Your task to perform on an android device: install app "Google Find My Device" Image 0: 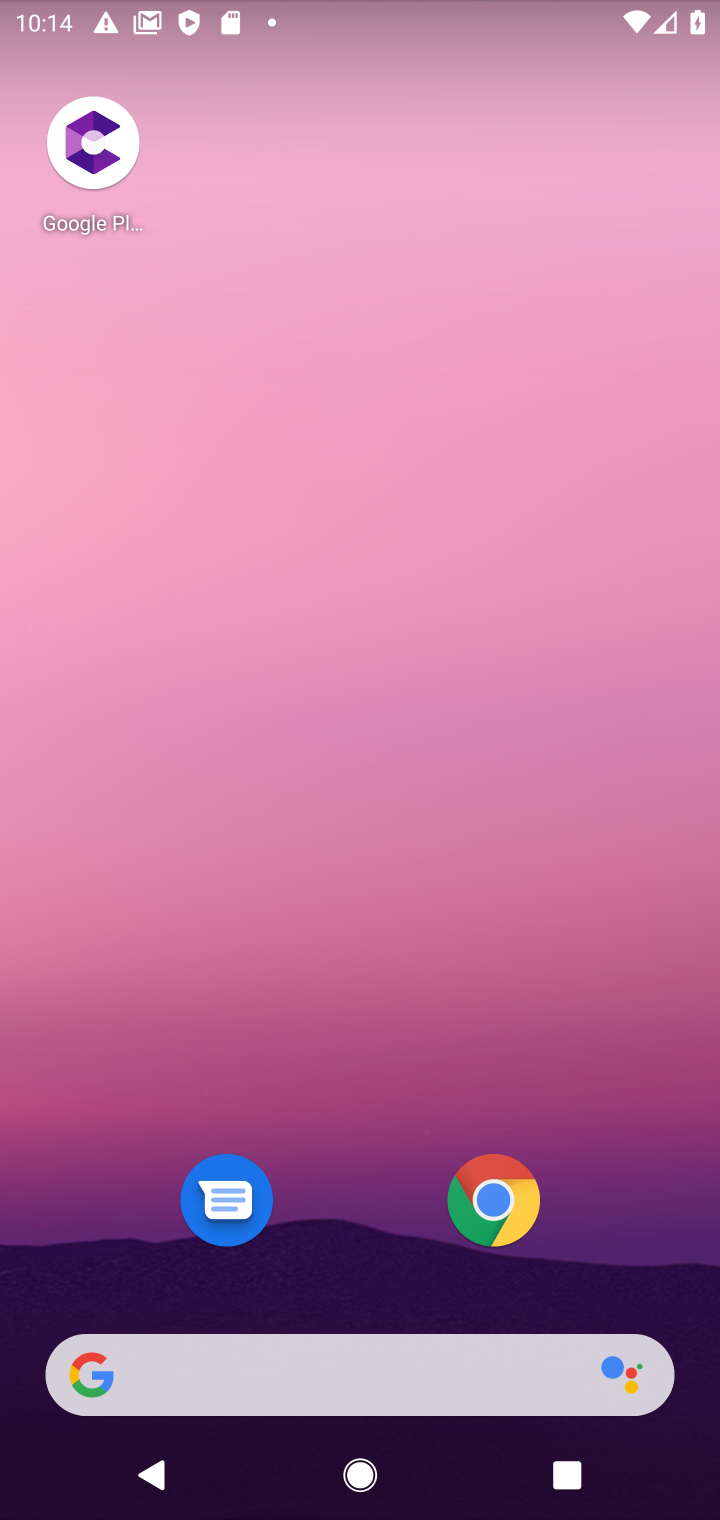
Step 0: drag from (405, 1284) to (657, 60)
Your task to perform on an android device: install app "Google Find My Device" Image 1: 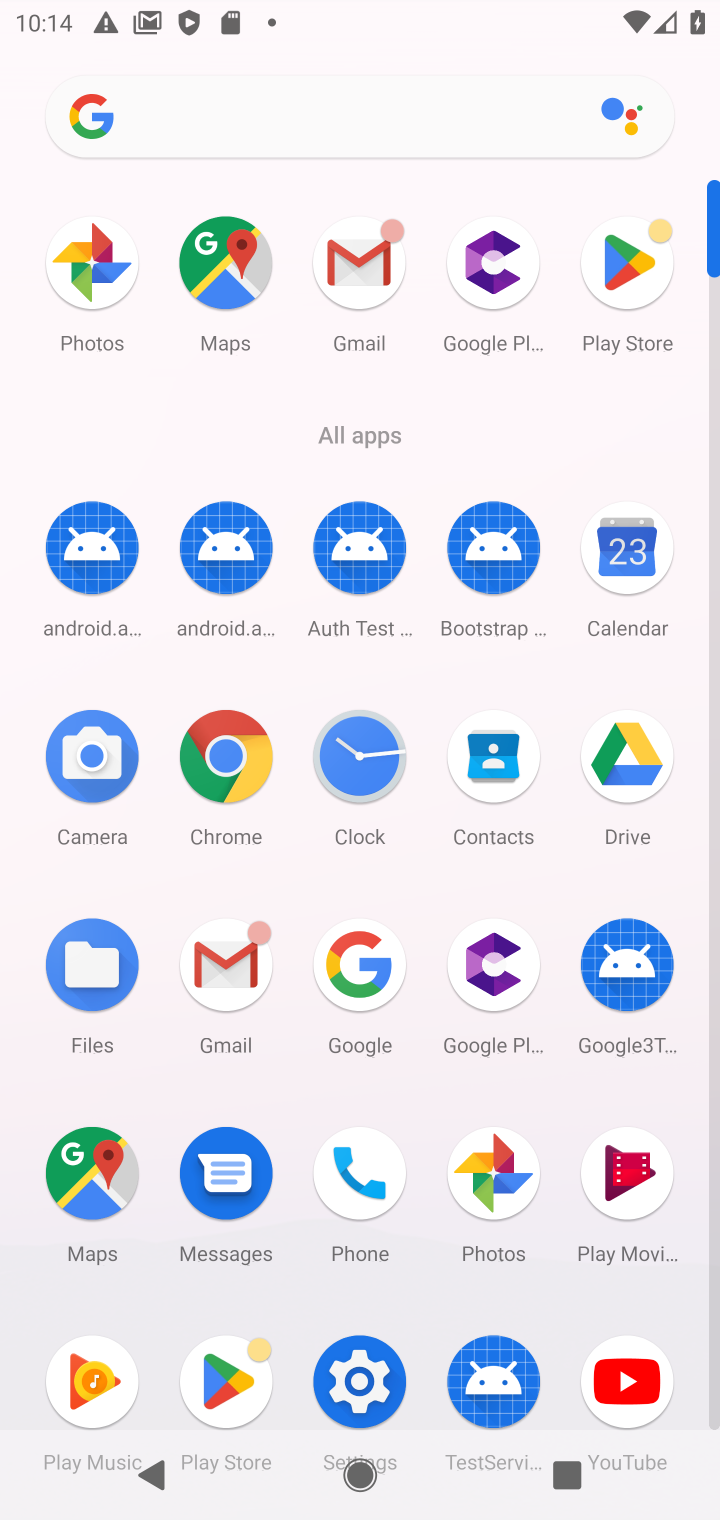
Step 1: click (632, 392)
Your task to perform on an android device: install app "Google Find My Device" Image 2: 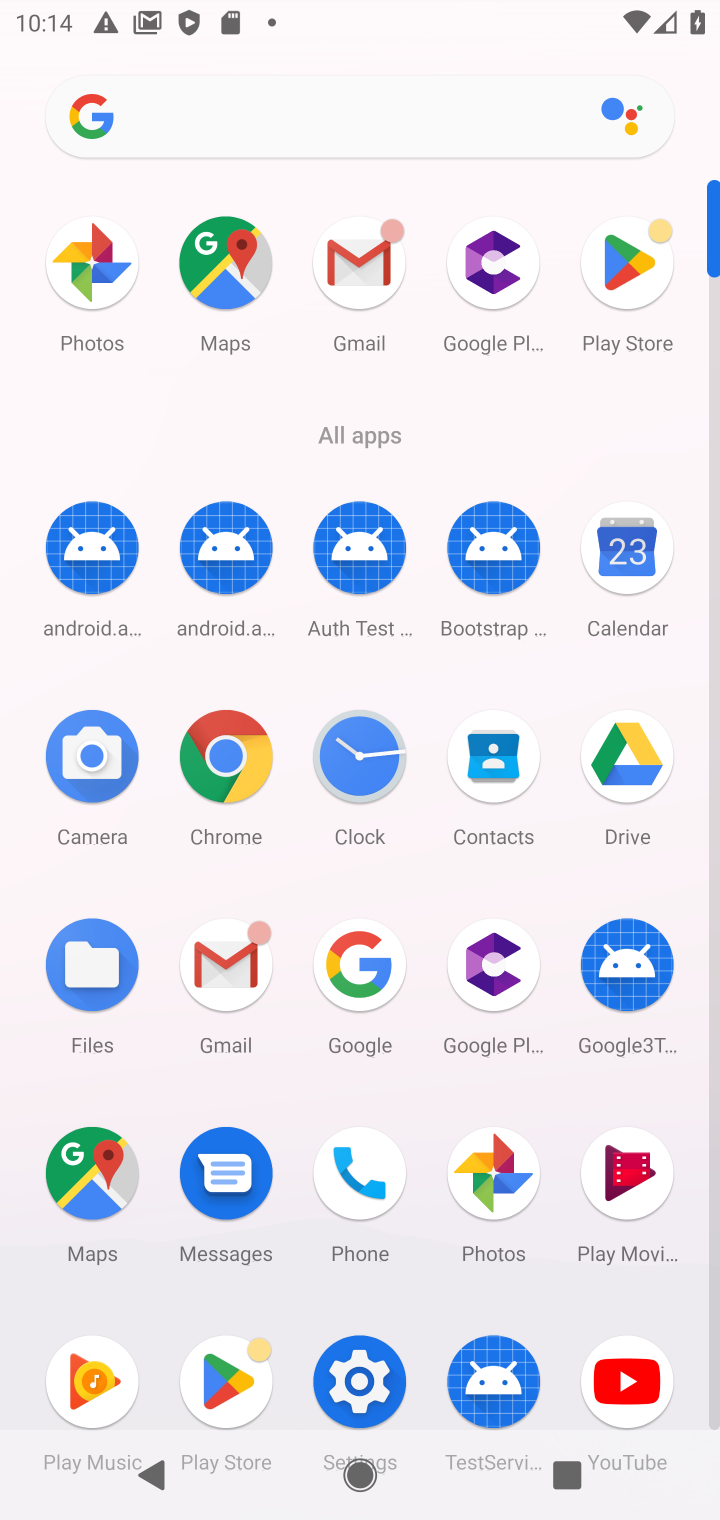
Step 2: click (638, 255)
Your task to perform on an android device: install app "Google Find My Device" Image 3: 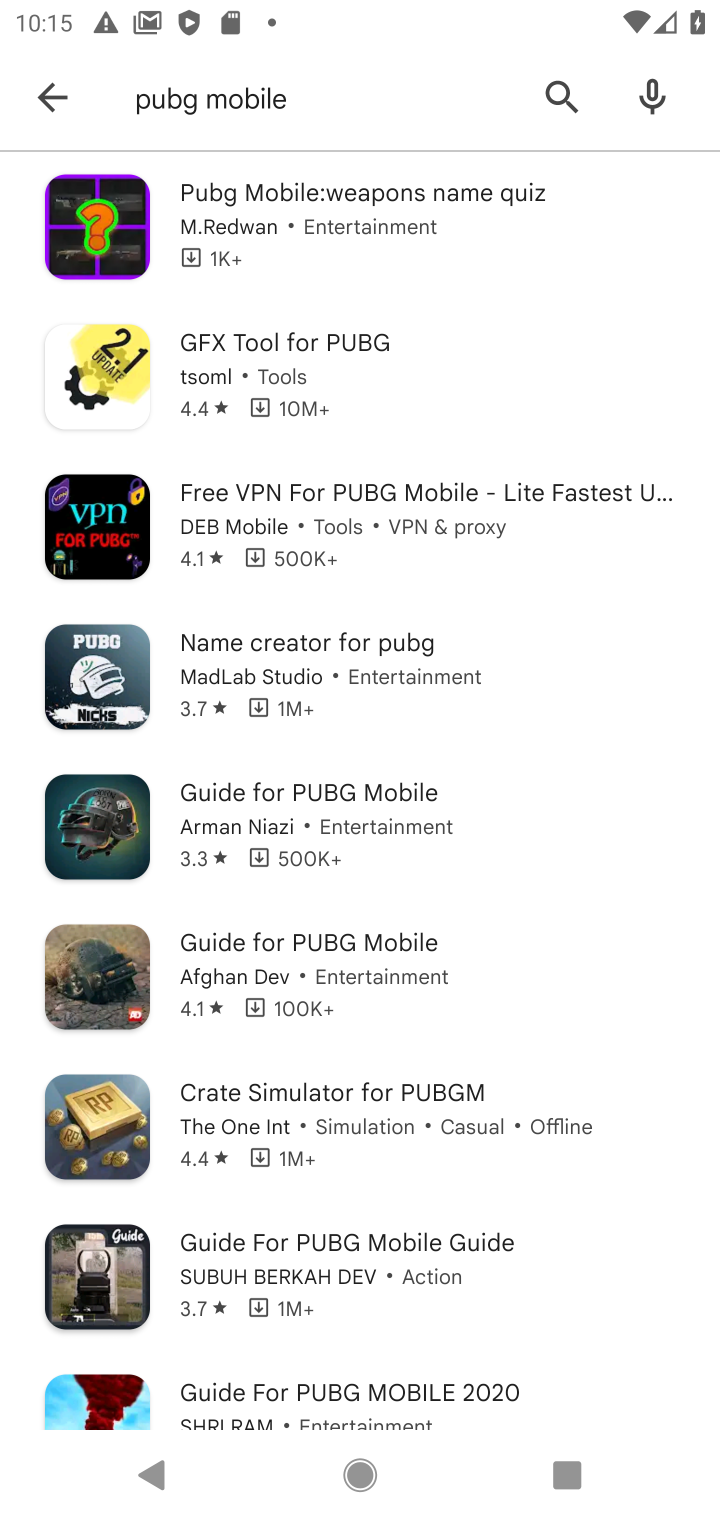
Step 3: click (47, 93)
Your task to perform on an android device: install app "Google Find My Device" Image 4: 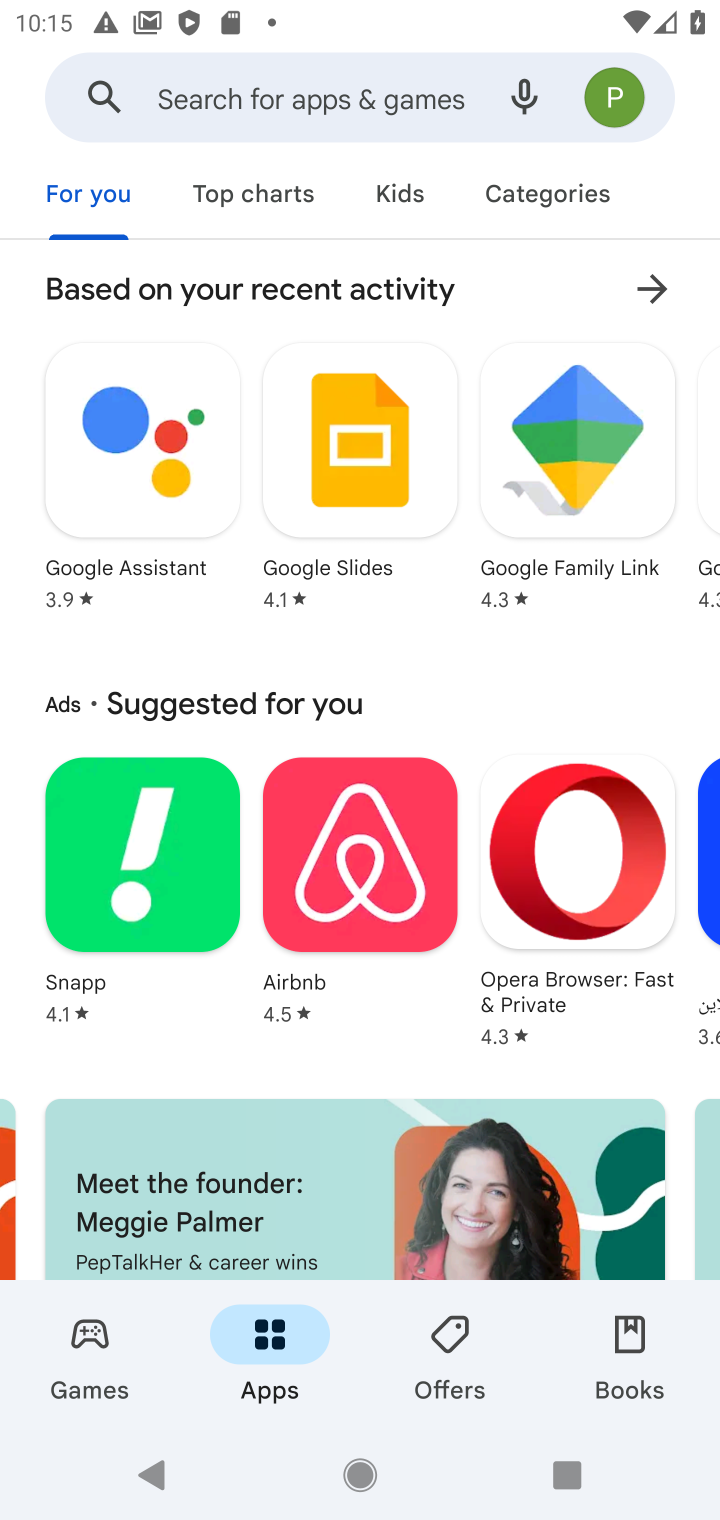
Step 4: click (161, 102)
Your task to perform on an android device: install app "Google Find My Device" Image 5: 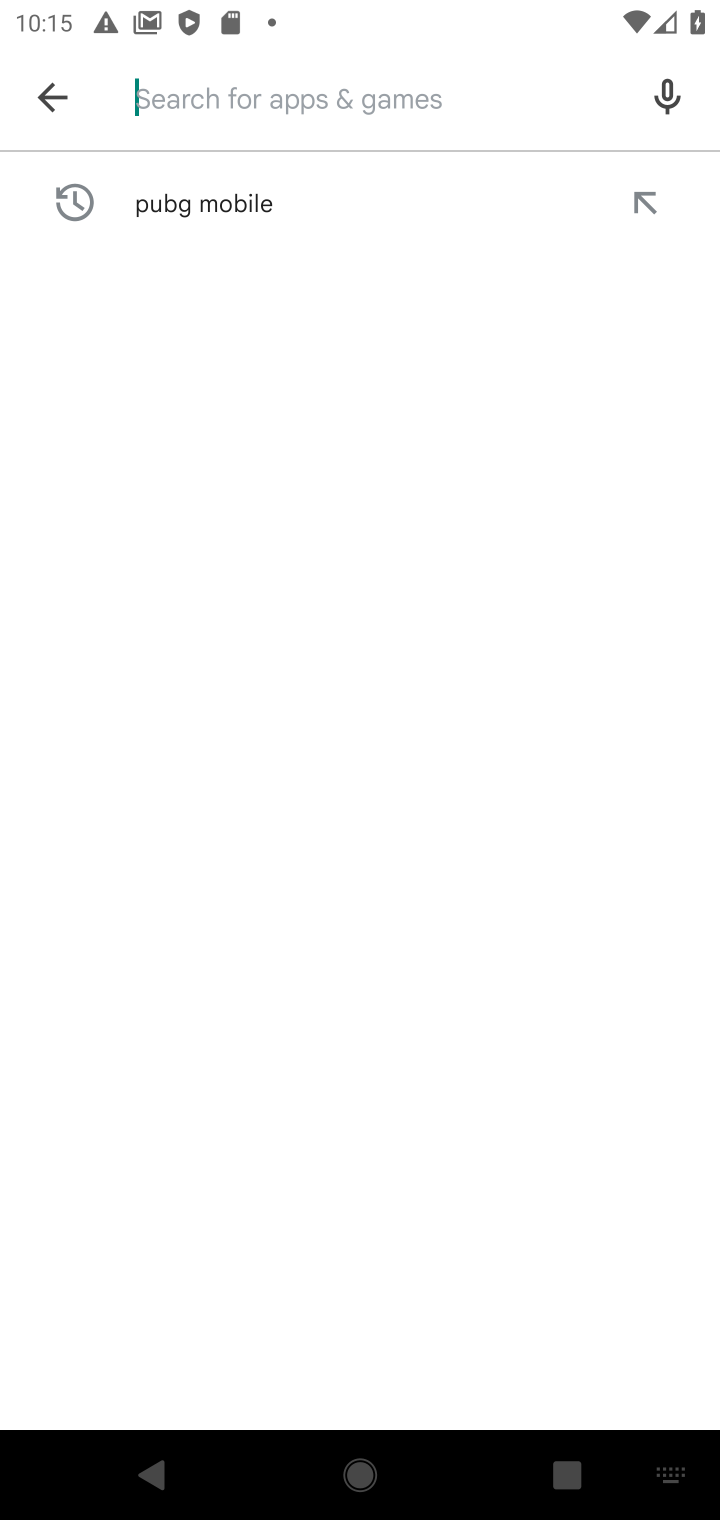
Step 5: type "Google Find My Device"
Your task to perform on an android device: install app "Google Find My Device" Image 6: 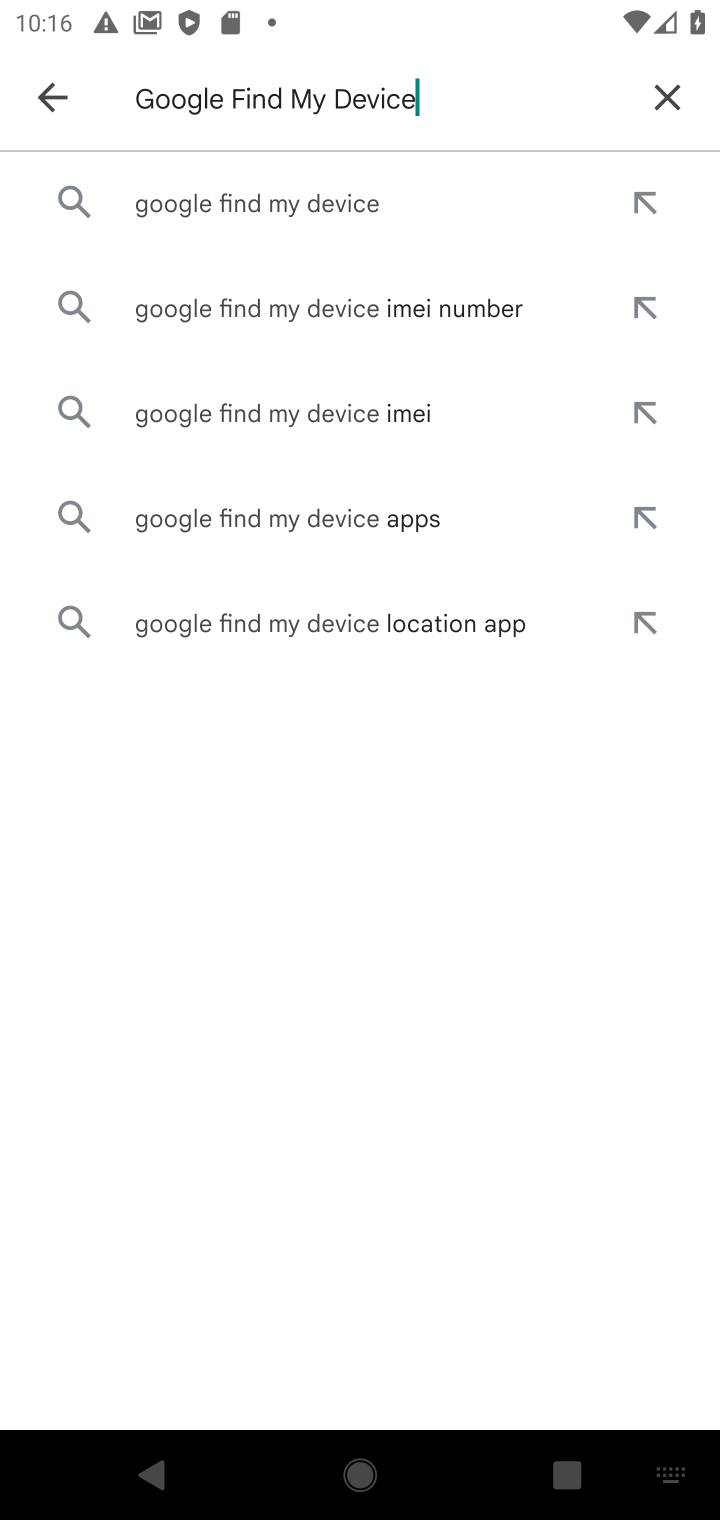
Step 6: click (412, 205)
Your task to perform on an android device: install app "Google Find My Device" Image 7: 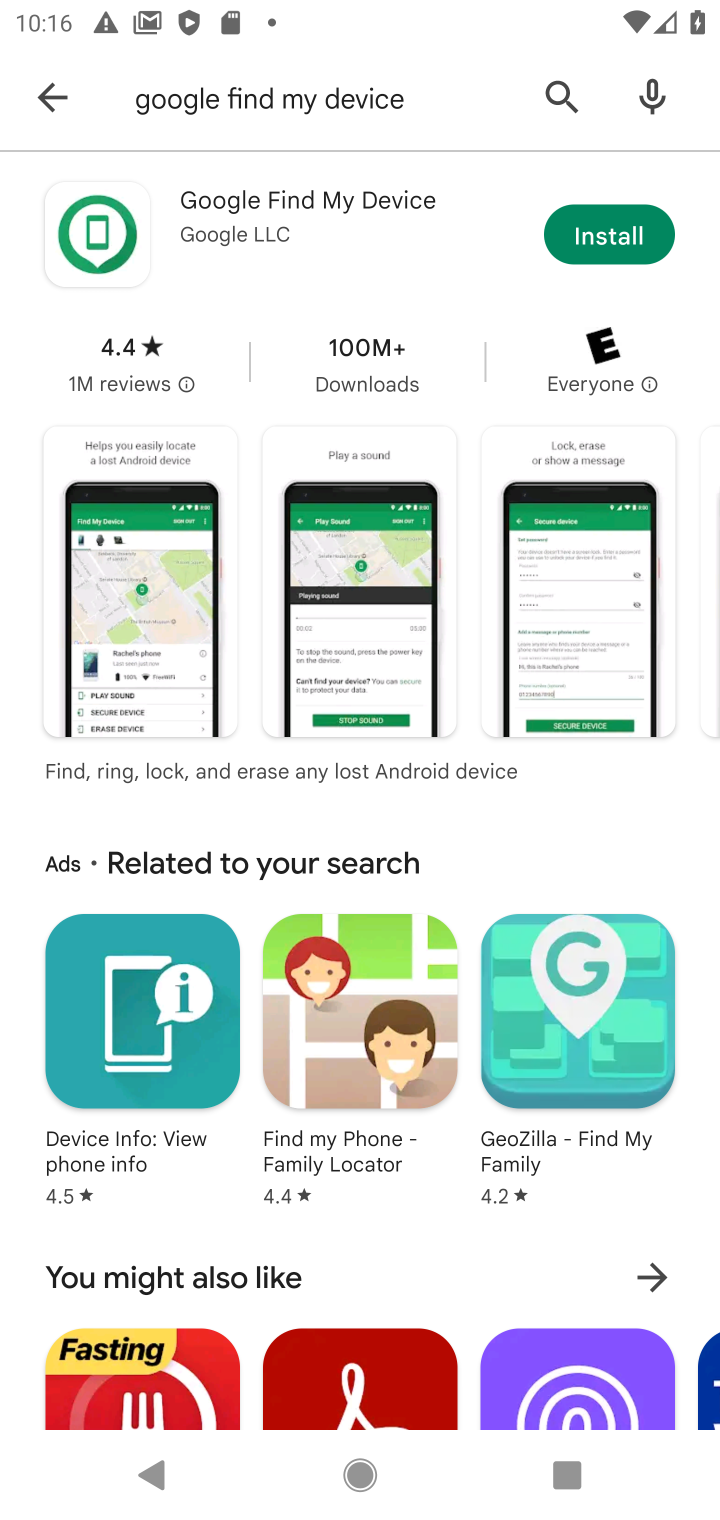
Step 7: click (412, 205)
Your task to perform on an android device: install app "Google Find My Device" Image 8: 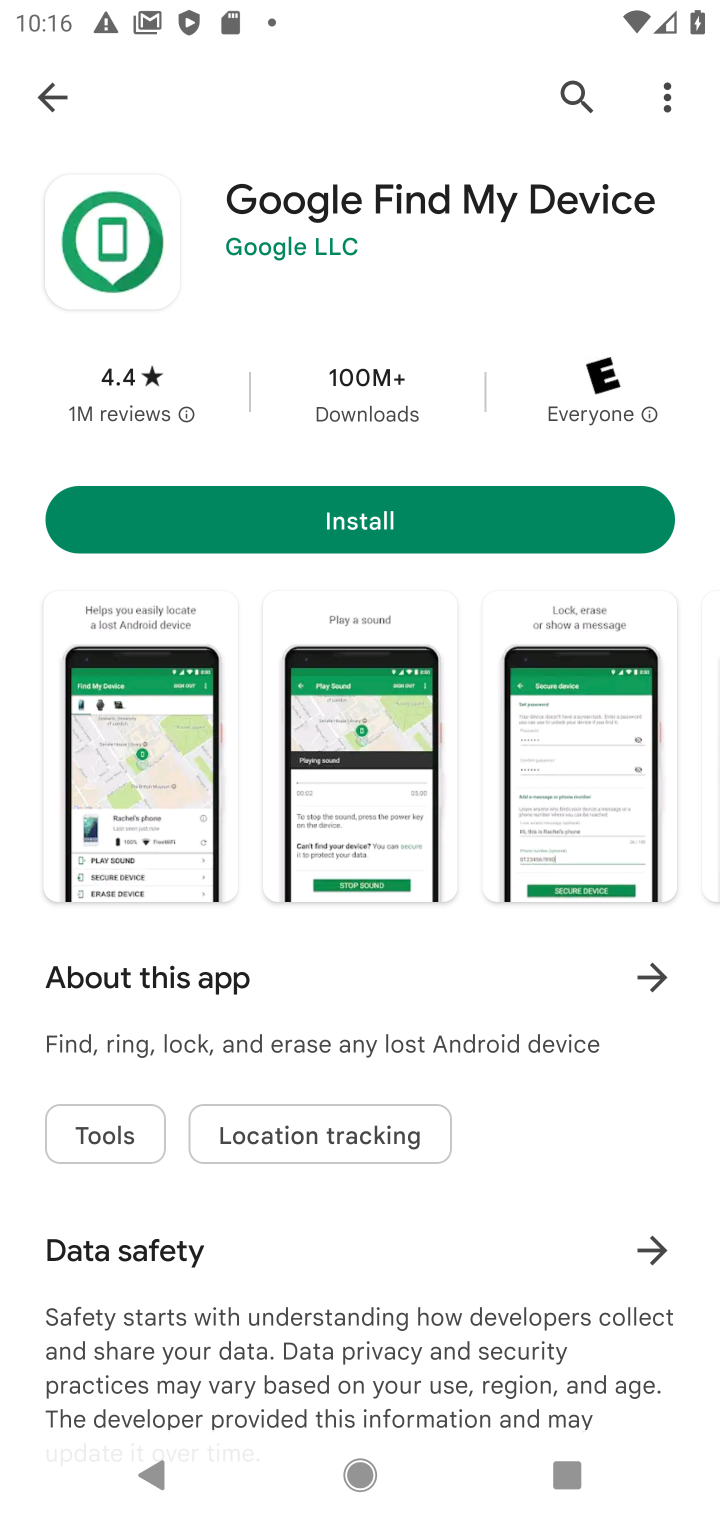
Step 8: click (432, 520)
Your task to perform on an android device: install app "Google Find My Device" Image 9: 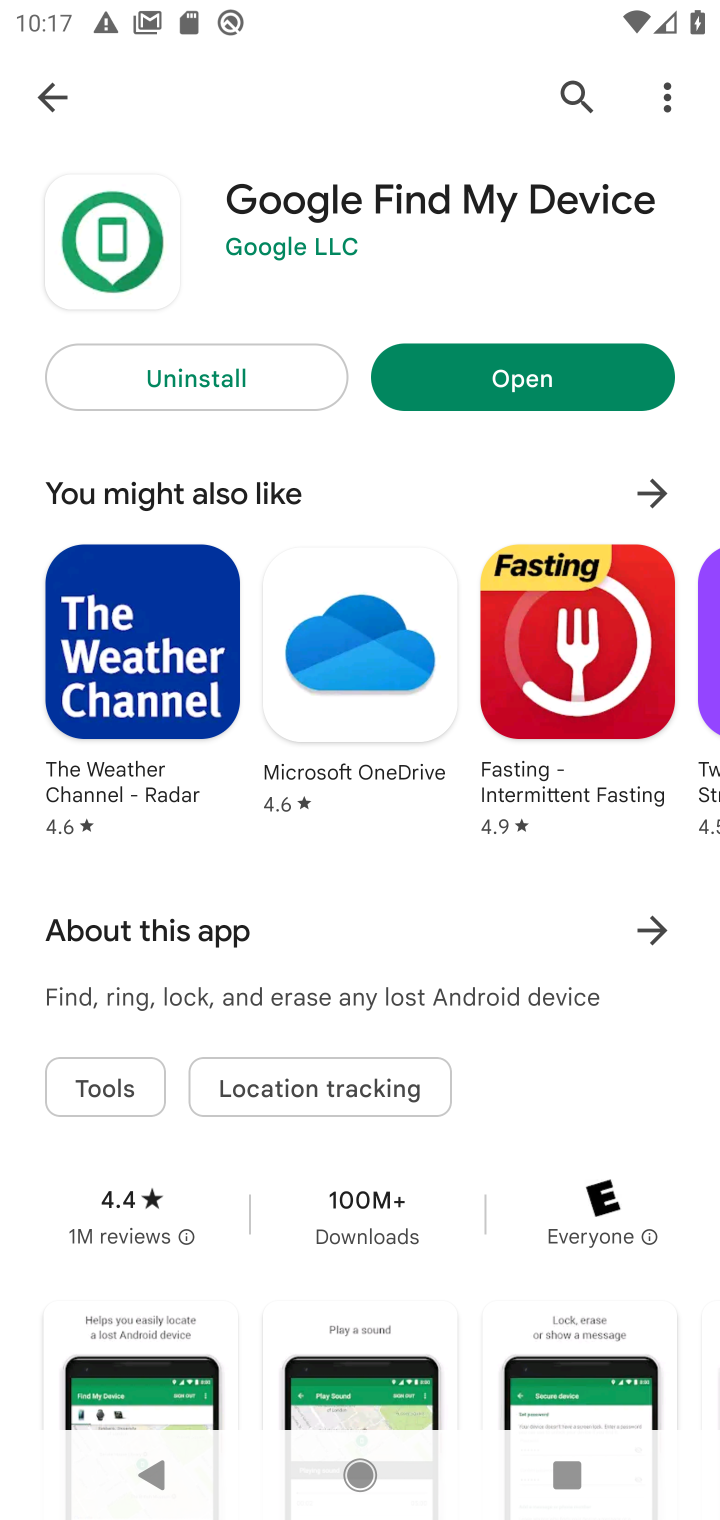
Step 9: task complete